Your task to perform on an android device: open sync settings in chrome Image 0: 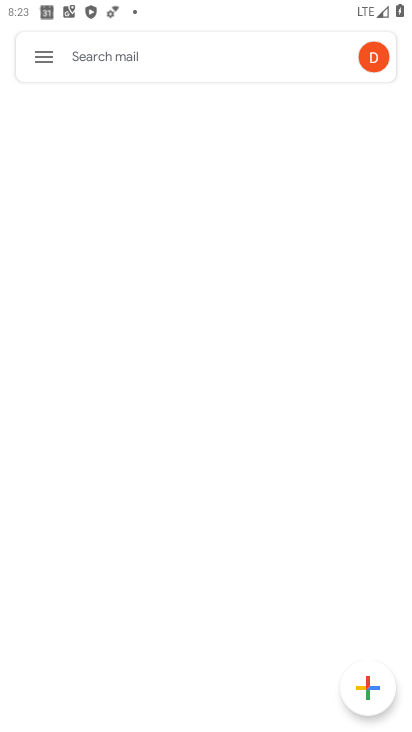
Step 0: press home button
Your task to perform on an android device: open sync settings in chrome Image 1: 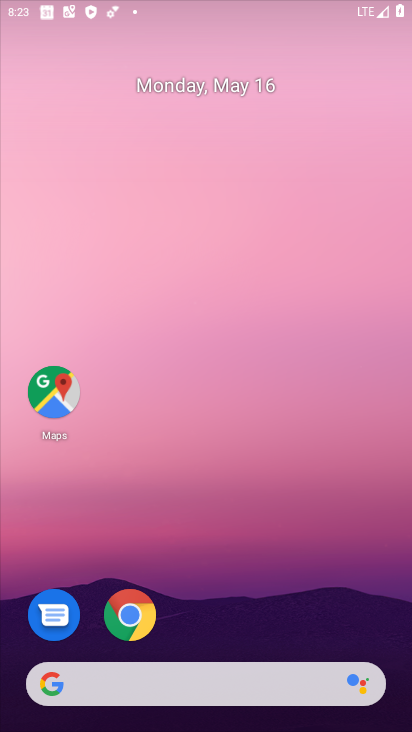
Step 1: drag from (259, 500) to (270, 29)
Your task to perform on an android device: open sync settings in chrome Image 2: 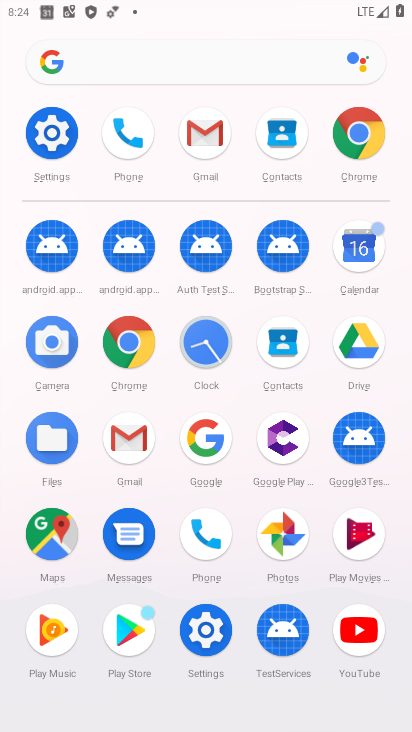
Step 2: click (339, 147)
Your task to perform on an android device: open sync settings in chrome Image 3: 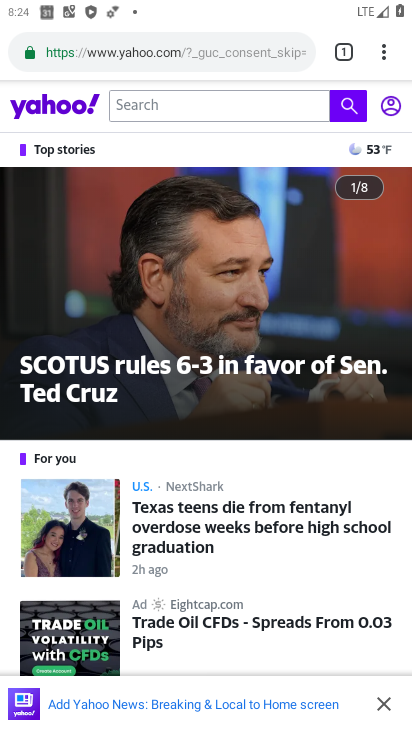
Step 3: click (390, 46)
Your task to perform on an android device: open sync settings in chrome Image 4: 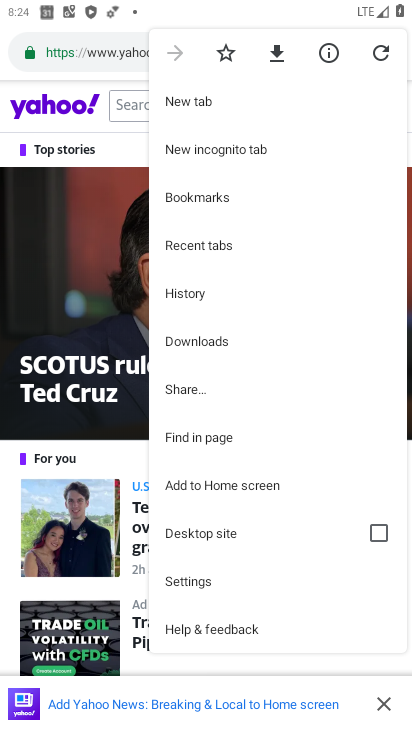
Step 4: click (234, 583)
Your task to perform on an android device: open sync settings in chrome Image 5: 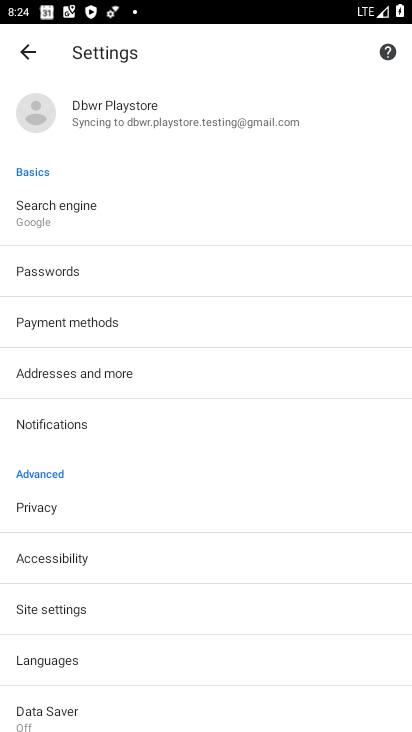
Step 5: click (239, 114)
Your task to perform on an android device: open sync settings in chrome Image 6: 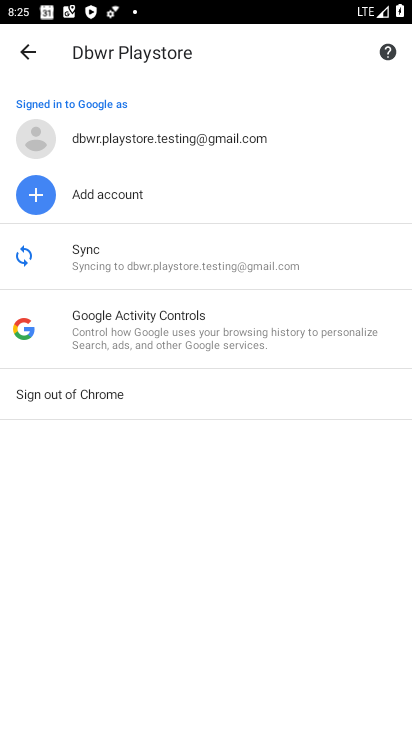
Step 6: click (202, 273)
Your task to perform on an android device: open sync settings in chrome Image 7: 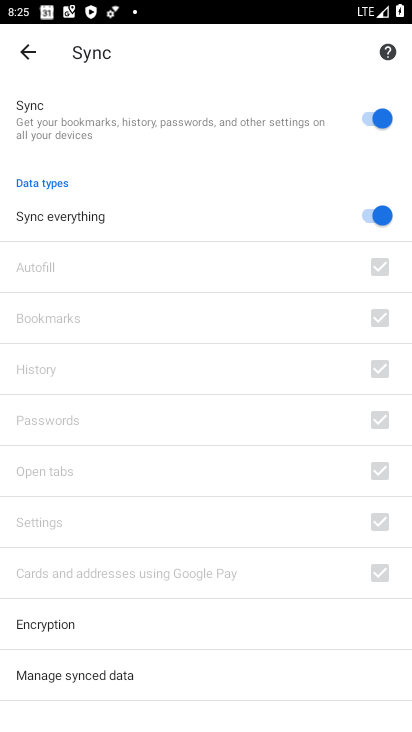
Step 7: task complete